Your task to perform on an android device: toggle airplane mode Image 0: 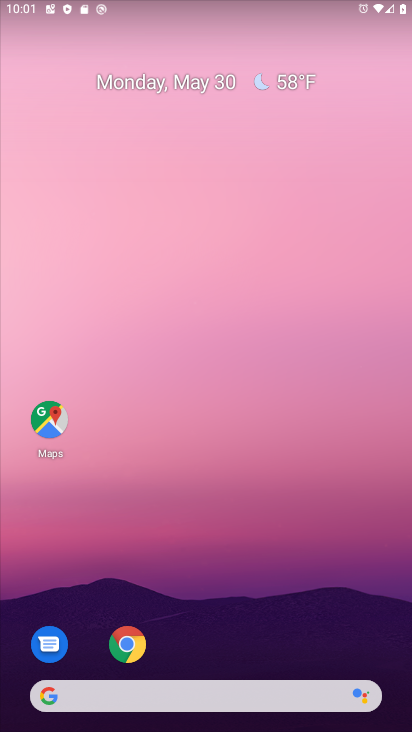
Step 0: drag from (389, 660) to (319, 85)
Your task to perform on an android device: toggle airplane mode Image 1: 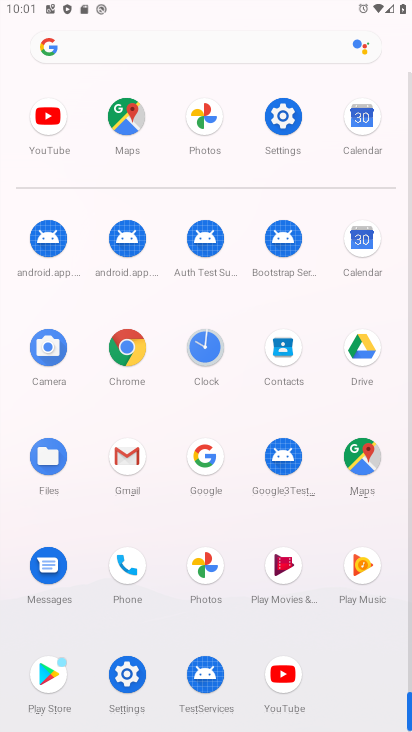
Step 1: click (127, 675)
Your task to perform on an android device: toggle airplane mode Image 2: 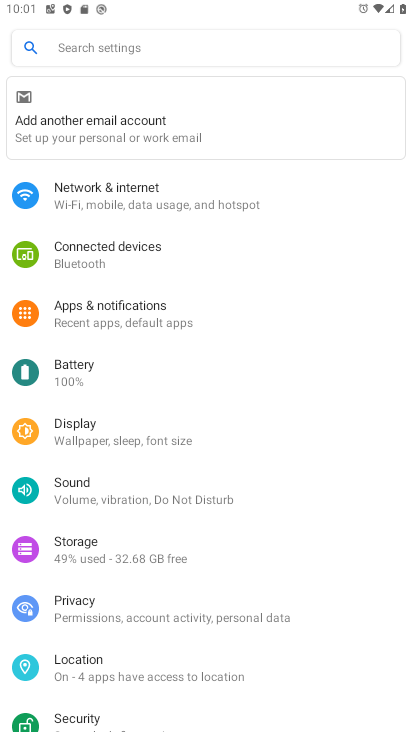
Step 2: click (122, 193)
Your task to perform on an android device: toggle airplane mode Image 3: 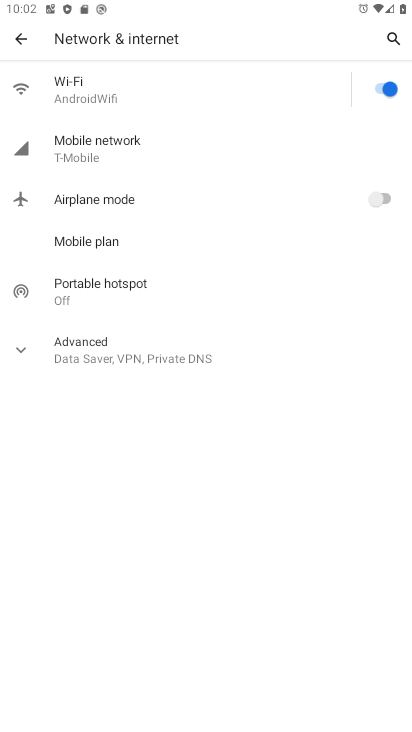
Step 3: click (387, 200)
Your task to perform on an android device: toggle airplane mode Image 4: 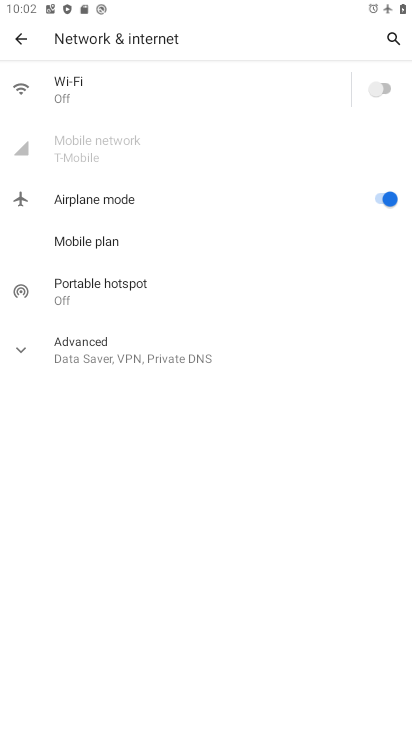
Step 4: task complete